Your task to perform on an android device: change notifications settings Image 0: 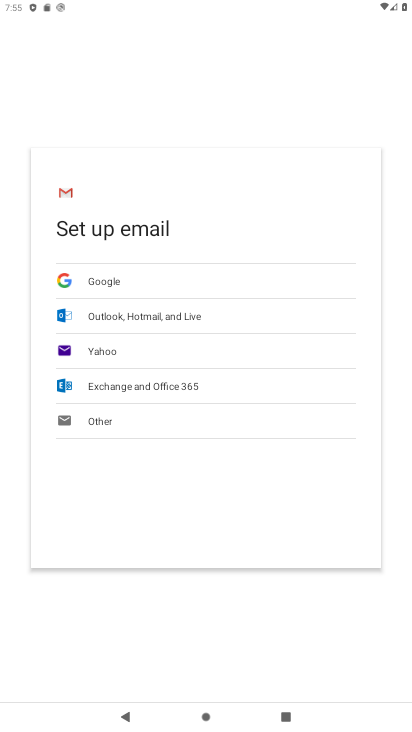
Step 0: drag from (274, 502) to (335, 182)
Your task to perform on an android device: change notifications settings Image 1: 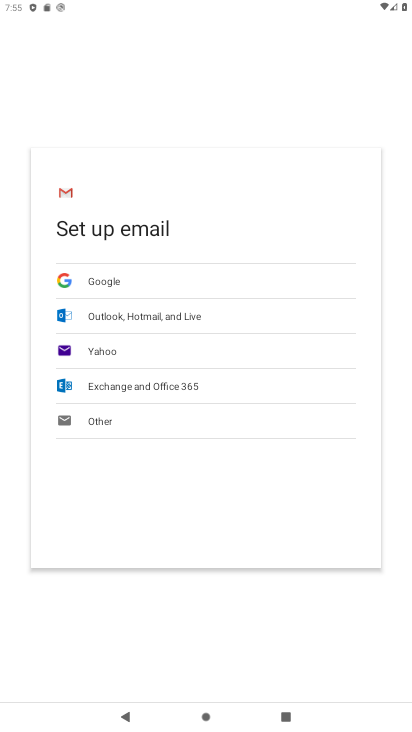
Step 1: press home button
Your task to perform on an android device: change notifications settings Image 2: 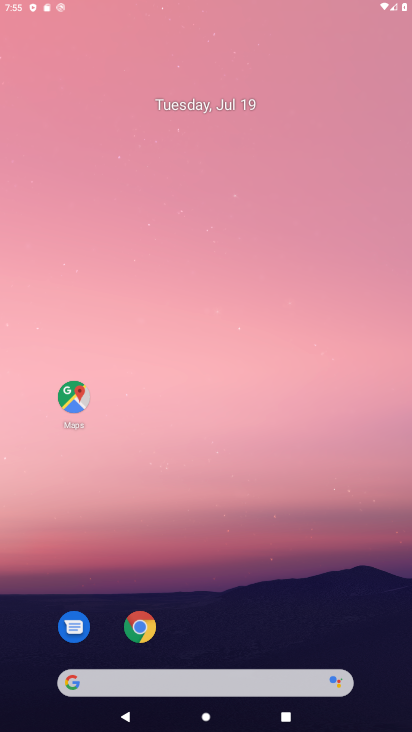
Step 2: drag from (191, 624) to (298, 30)
Your task to perform on an android device: change notifications settings Image 3: 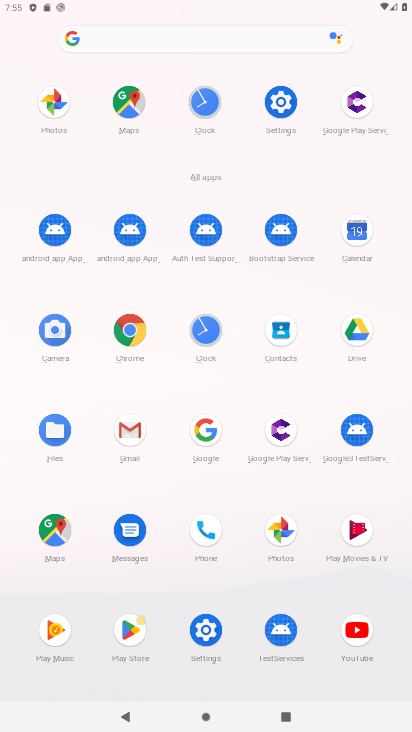
Step 3: drag from (170, 599) to (290, 48)
Your task to perform on an android device: change notifications settings Image 4: 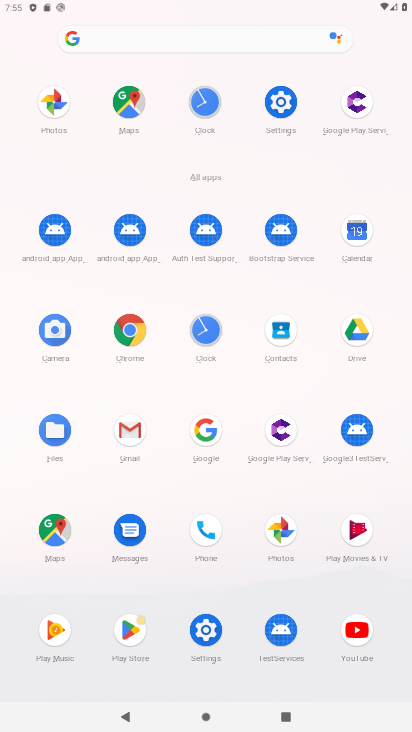
Step 4: click (130, 422)
Your task to perform on an android device: change notifications settings Image 5: 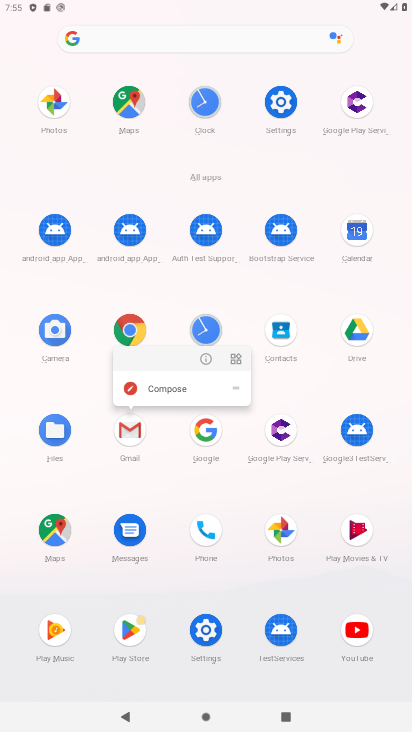
Step 5: click (208, 362)
Your task to perform on an android device: change notifications settings Image 6: 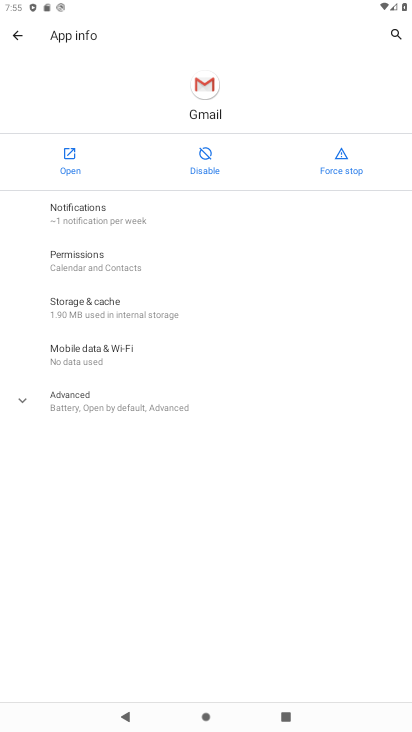
Step 6: click (64, 161)
Your task to perform on an android device: change notifications settings Image 7: 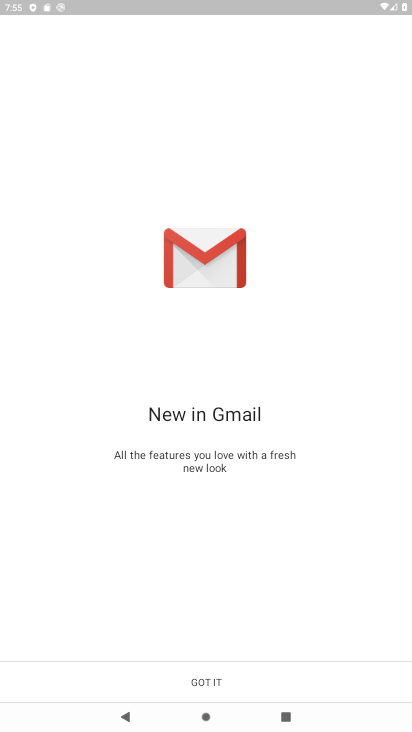
Step 7: drag from (193, 622) to (251, 305)
Your task to perform on an android device: change notifications settings Image 8: 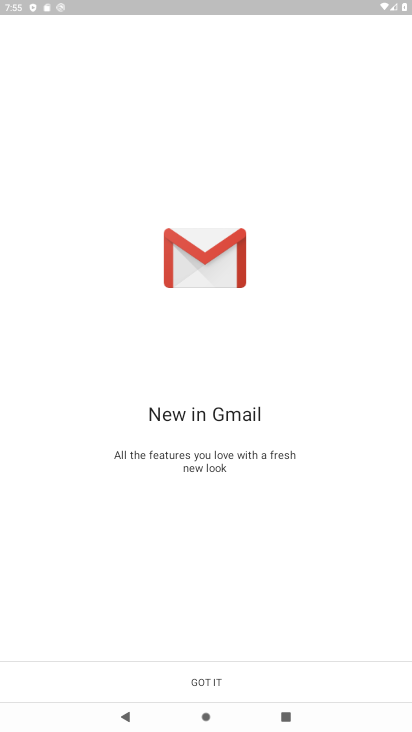
Step 8: click (205, 676)
Your task to perform on an android device: change notifications settings Image 9: 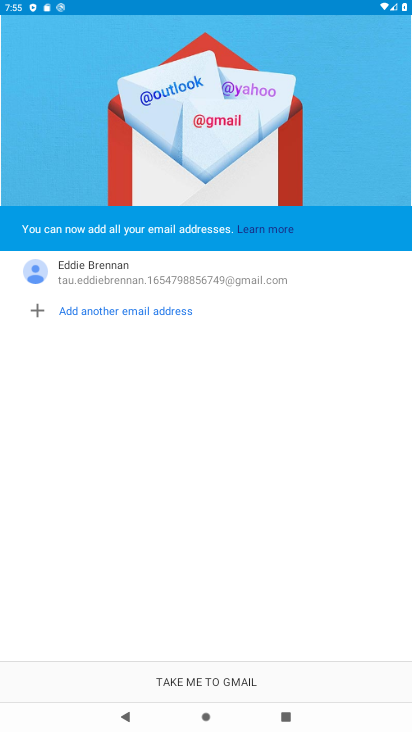
Step 9: drag from (274, 565) to (280, 466)
Your task to perform on an android device: change notifications settings Image 10: 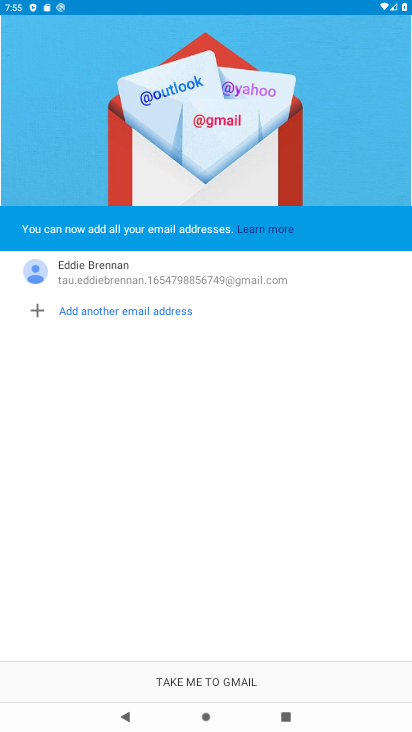
Step 10: click (180, 685)
Your task to perform on an android device: change notifications settings Image 11: 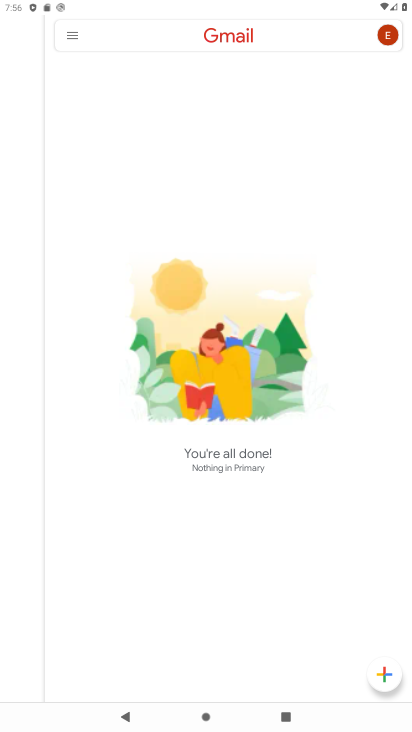
Step 11: click (70, 33)
Your task to perform on an android device: change notifications settings Image 12: 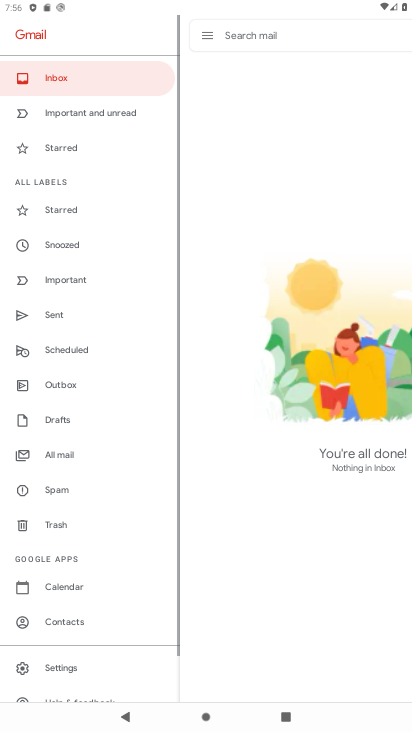
Step 12: drag from (80, 610) to (170, 69)
Your task to perform on an android device: change notifications settings Image 13: 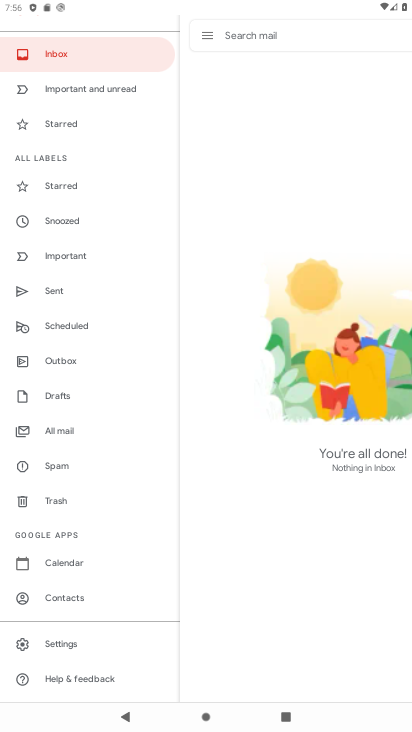
Step 13: click (63, 646)
Your task to perform on an android device: change notifications settings Image 14: 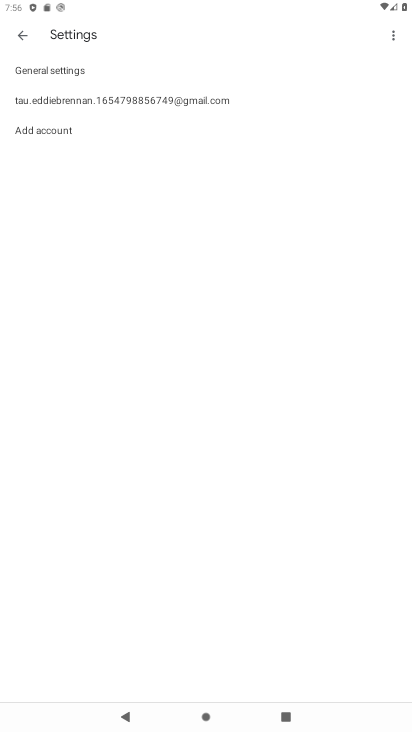
Step 14: click (110, 100)
Your task to perform on an android device: change notifications settings Image 15: 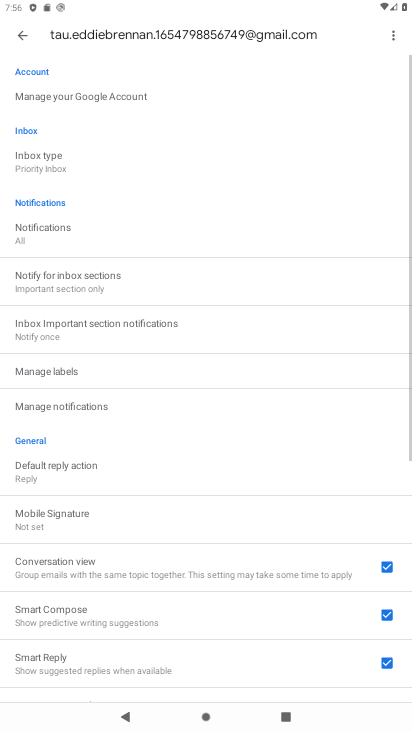
Step 15: click (71, 404)
Your task to perform on an android device: change notifications settings Image 16: 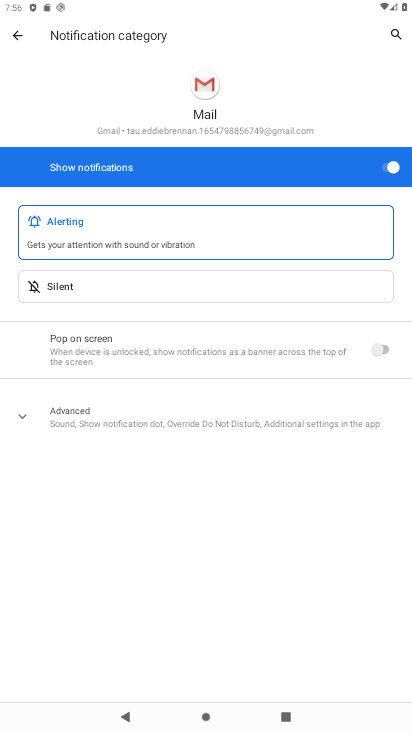
Step 16: click (381, 152)
Your task to perform on an android device: change notifications settings Image 17: 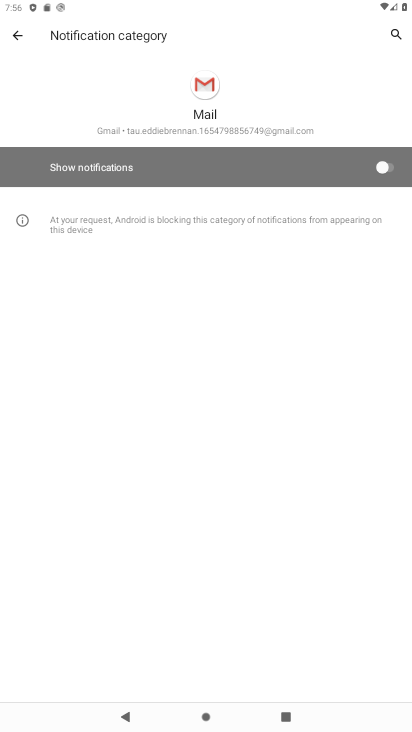
Step 17: task complete